Your task to perform on an android device: Go to ESPN.com Image 0: 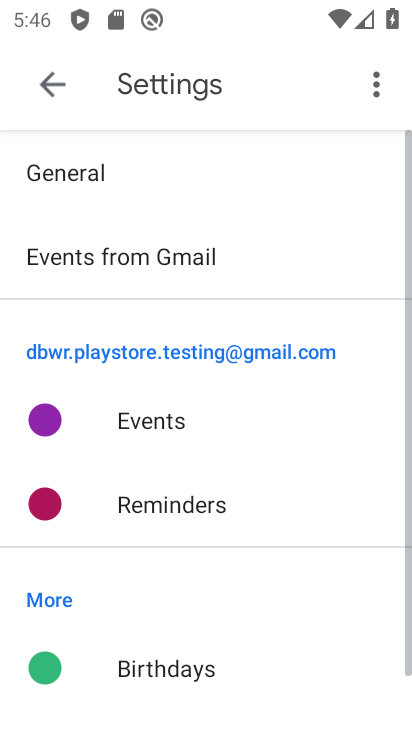
Step 0: drag from (351, 552) to (331, 444)
Your task to perform on an android device: Go to ESPN.com Image 1: 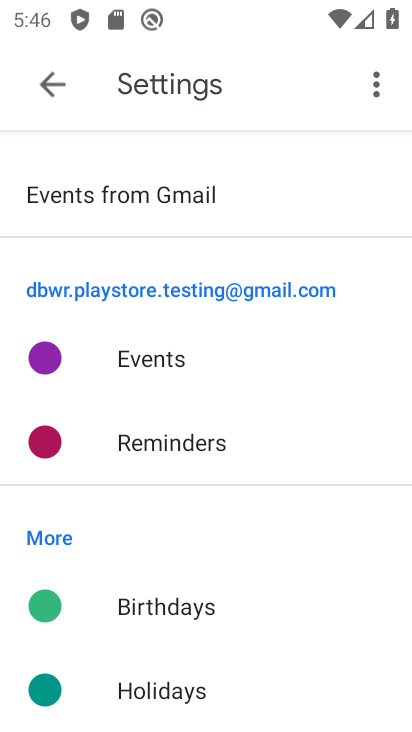
Step 1: press home button
Your task to perform on an android device: Go to ESPN.com Image 2: 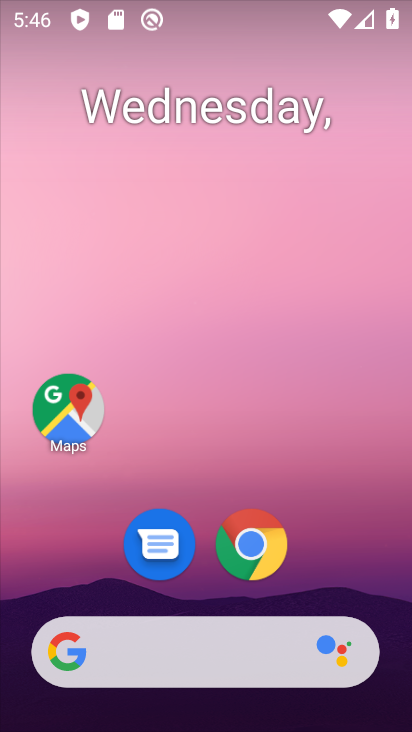
Step 2: click (255, 552)
Your task to perform on an android device: Go to ESPN.com Image 3: 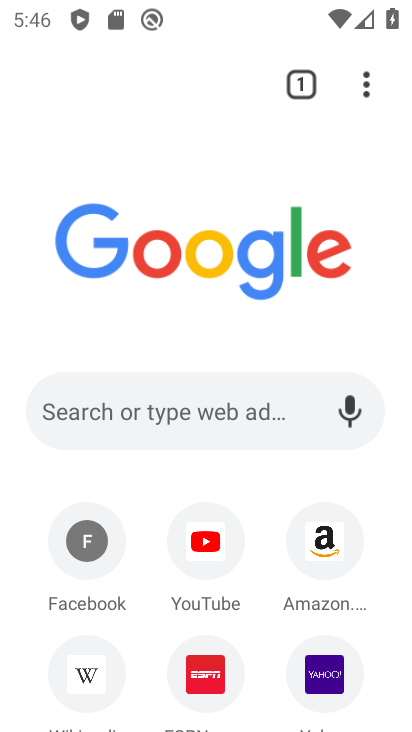
Step 3: click (213, 680)
Your task to perform on an android device: Go to ESPN.com Image 4: 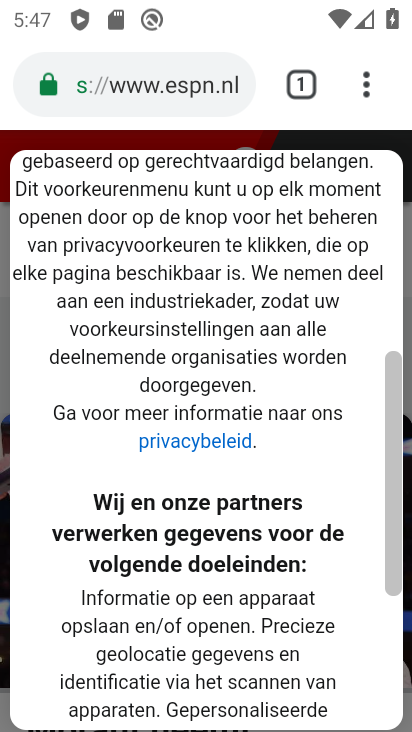
Step 4: task complete